Your task to perform on an android device: turn smart compose on in the gmail app Image 0: 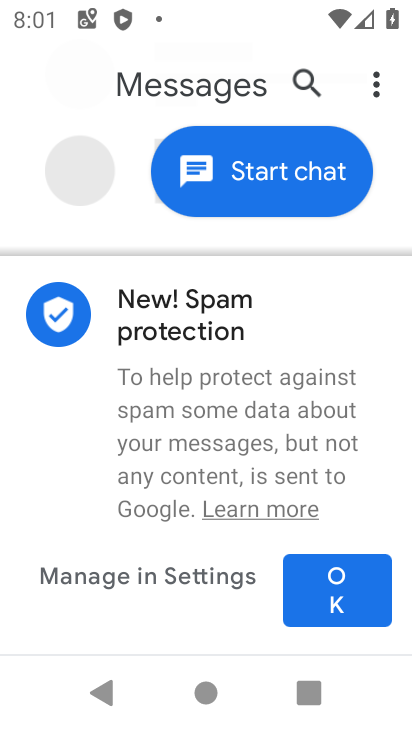
Step 0: press home button
Your task to perform on an android device: turn smart compose on in the gmail app Image 1: 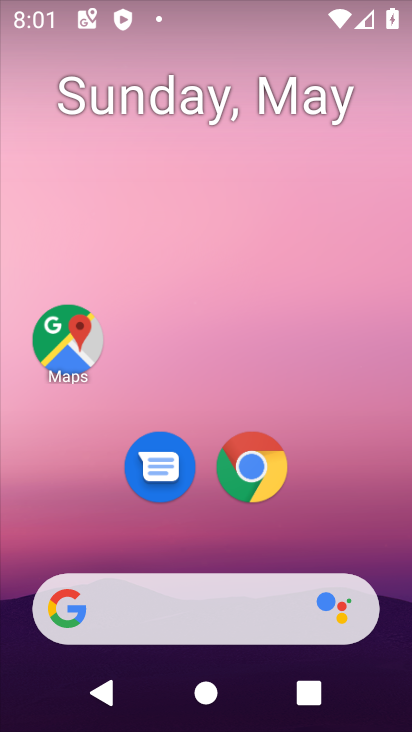
Step 1: drag from (105, 724) to (193, 185)
Your task to perform on an android device: turn smart compose on in the gmail app Image 2: 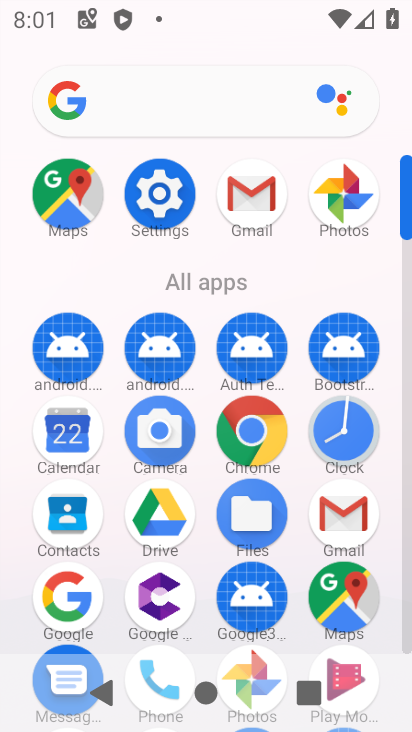
Step 2: click (251, 215)
Your task to perform on an android device: turn smart compose on in the gmail app Image 3: 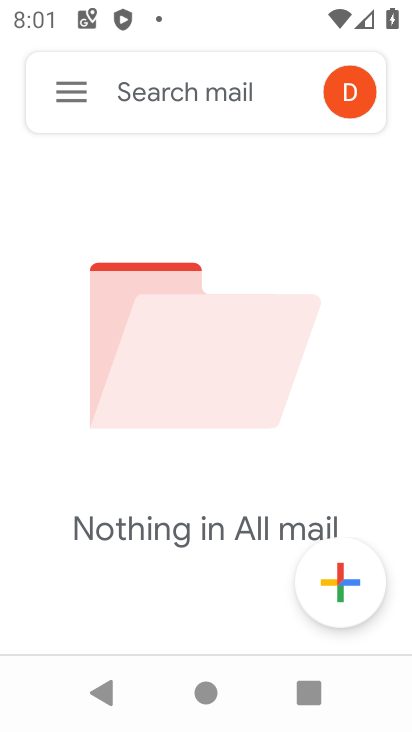
Step 3: click (75, 98)
Your task to perform on an android device: turn smart compose on in the gmail app Image 4: 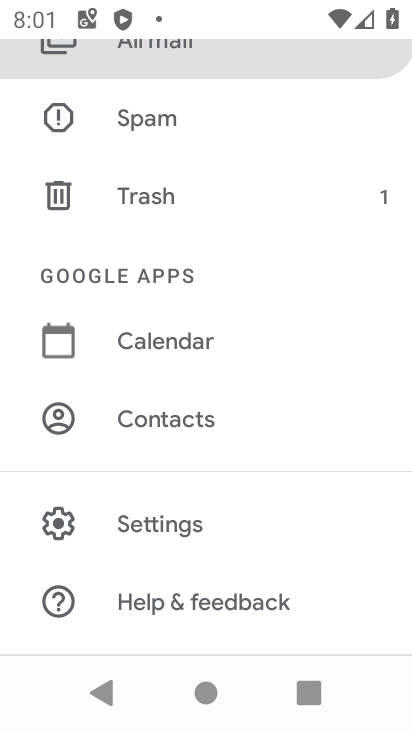
Step 4: click (169, 520)
Your task to perform on an android device: turn smart compose on in the gmail app Image 5: 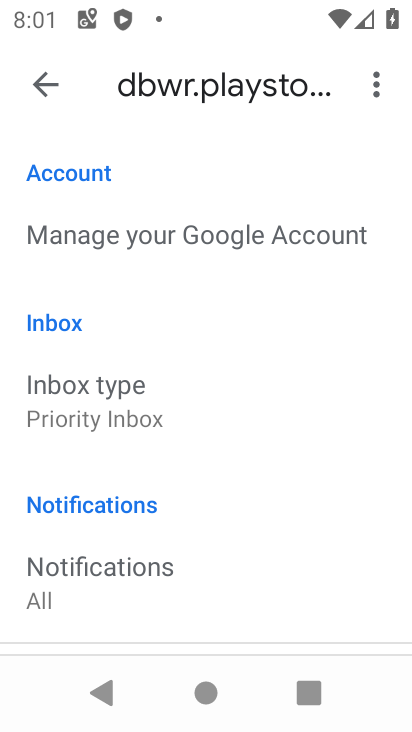
Step 5: task complete